Your task to perform on an android device: Search for Italian restaurants on Maps Image 0: 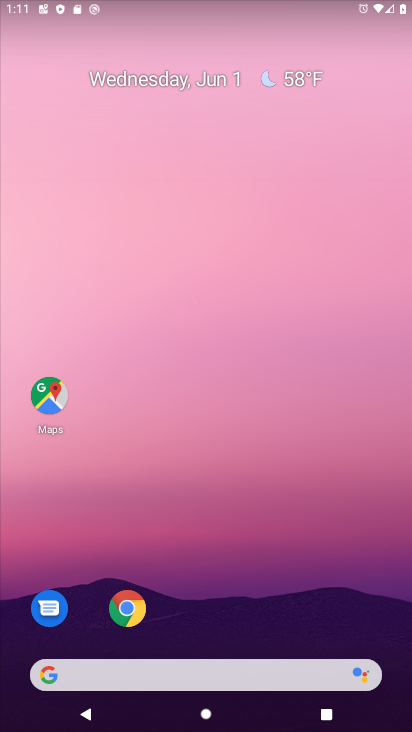
Step 0: click (50, 390)
Your task to perform on an android device: Search for Italian restaurants on Maps Image 1: 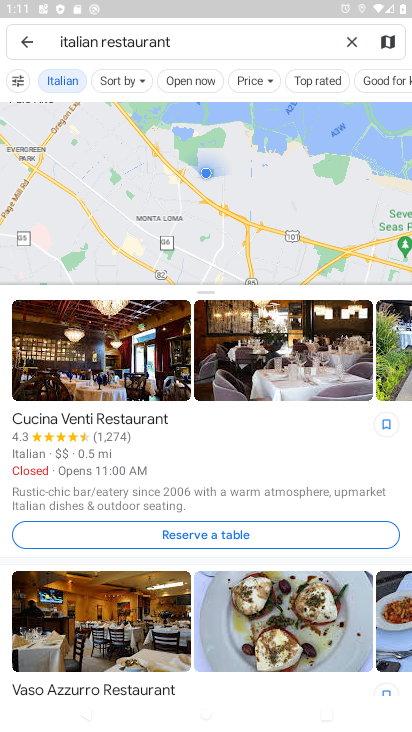
Step 1: task complete